Your task to perform on an android device: Go to ESPN.com Image 0: 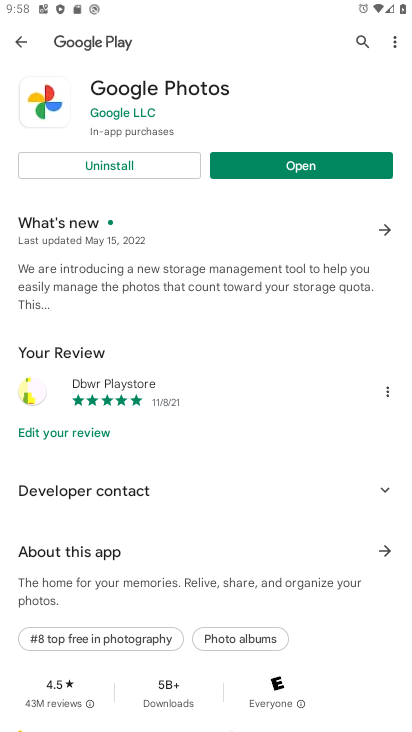
Step 0: press home button
Your task to perform on an android device: Go to ESPN.com Image 1: 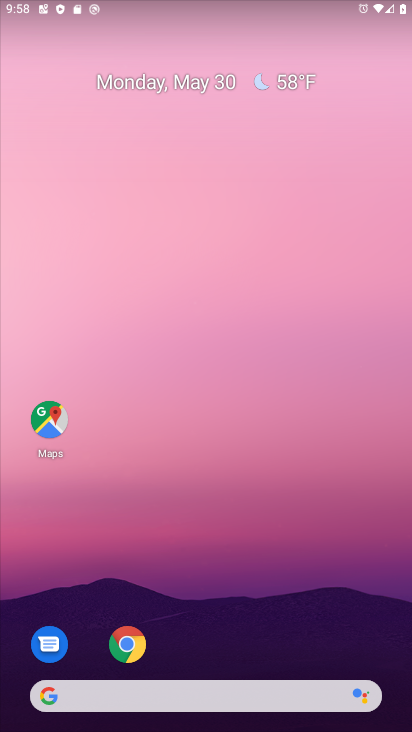
Step 1: click (124, 644)
Your task to perform on an android device: Go to ESPN.com Image 2: 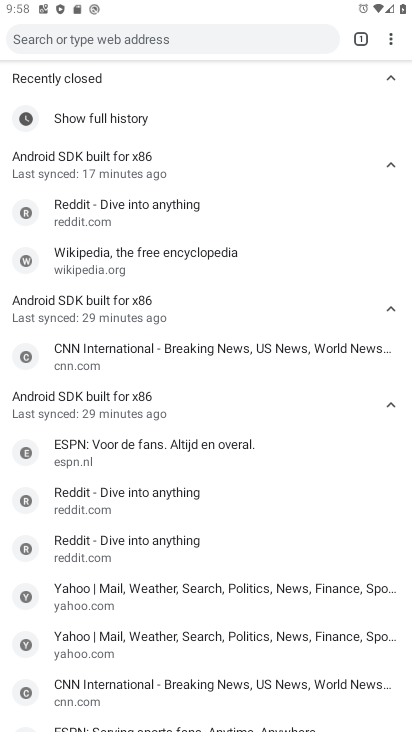
Step 2: click (144, 29)
Your task to perform on an android device: Go to ESPN.com Image 3: 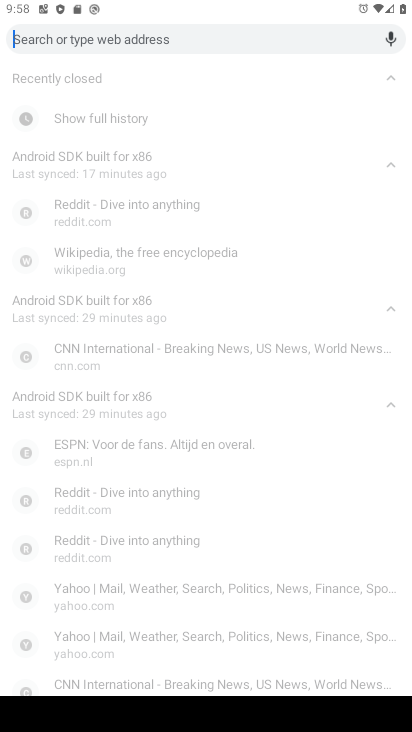
Step 3: type "espn.com"
Your task to perform on an android device: Go to ESPN.com Image 4: 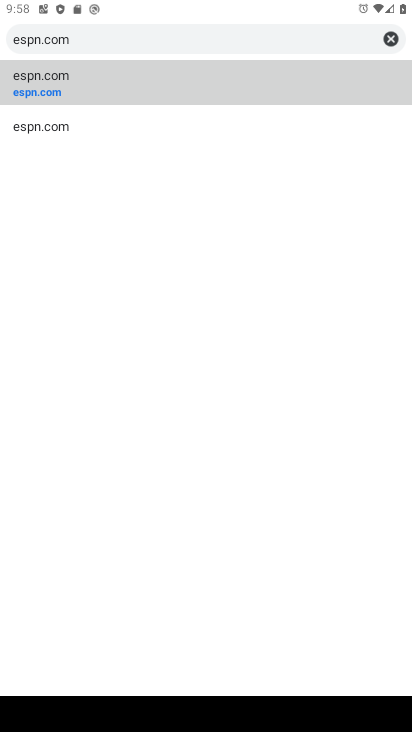
Step 4: click (72, 82)
Your task to perform on an android device: Go to ESPN.com Image 5: 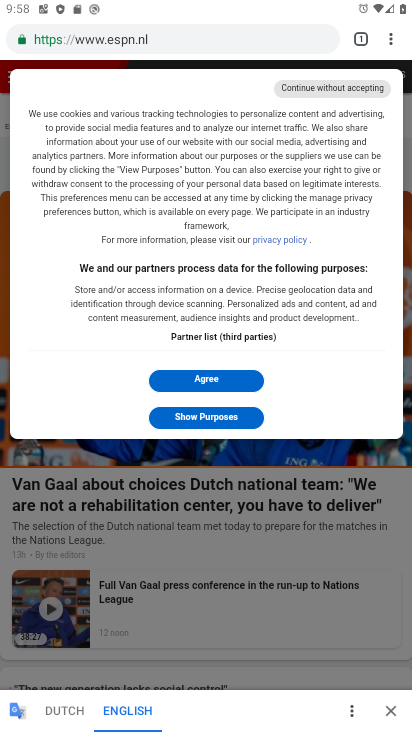
Step 5: click (193, 379)
Your task to perform on an android device: Go to ESPN.com Image 6: 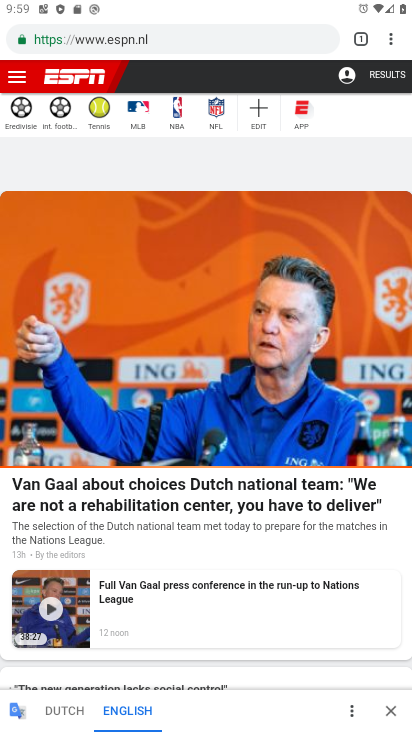
Step 6: task complete